Your task to perform on an android device: change notification settings in the gmail app Image 0: 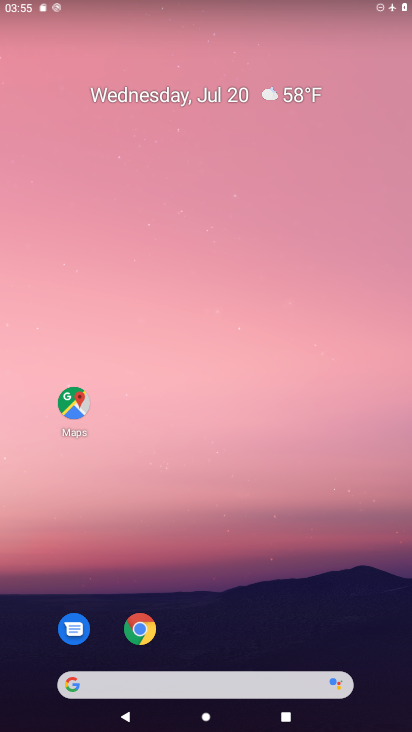
Step 0: drag from (253, 619) to (264, 164)
Your task to perform on an android device: change notification settings in the gmail app Image 1: 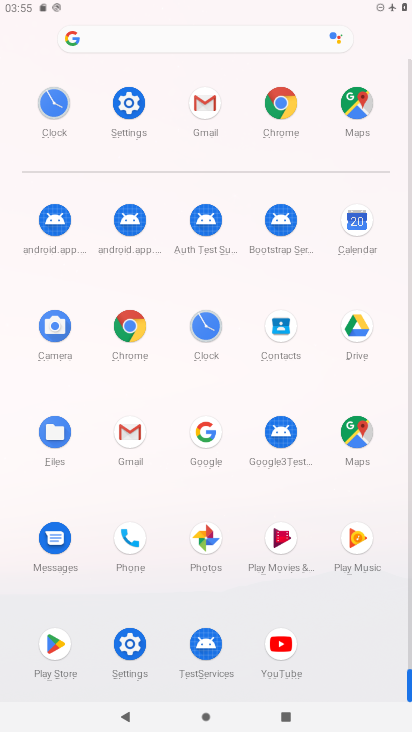
Step 1: click (138, 437)
Your task to perform on an android device: change notification settings in the gmail app Image 2: 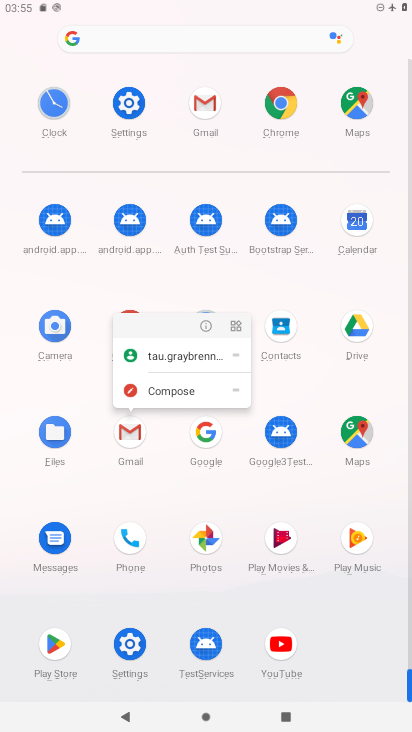
Step 2: click (201, 322)
Your task to perform on an android device: change notification settings in the gmail app Image 3: 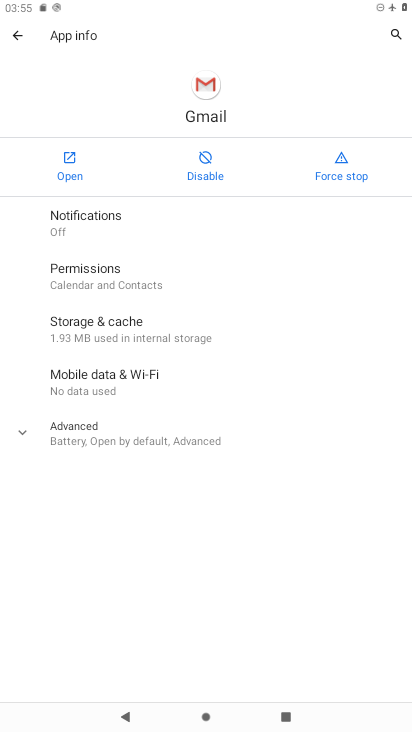
Step 3: click (94, 224)
Your task to perform on an android device: change notification settings in the gmail app Image 4: 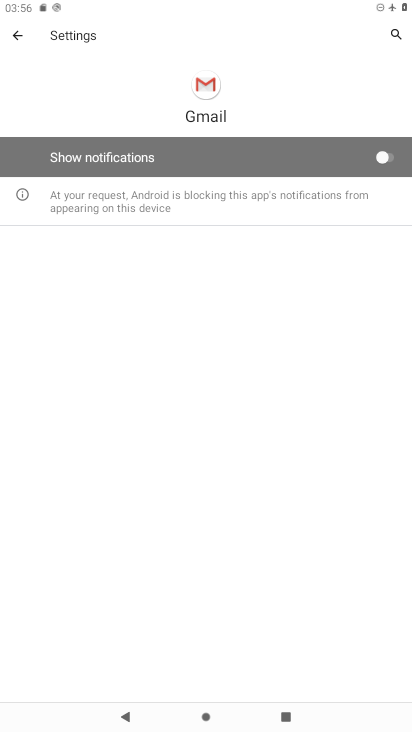
Step 4: click (166, 153)
Your task to perform on an android device: change notification settings in the gmail app Image 5: 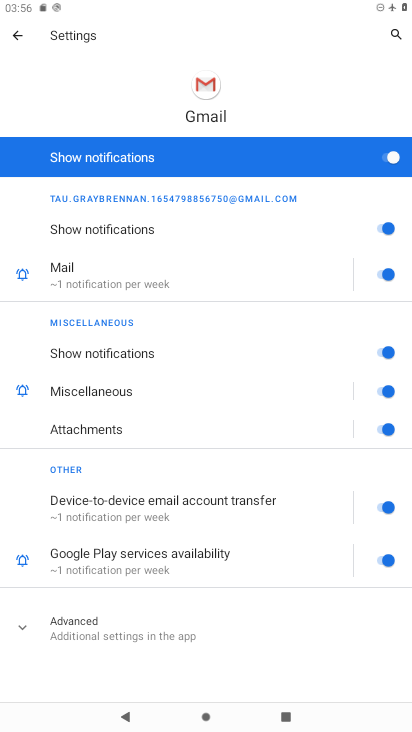
Step 5: task complete